Your task to perform on an android device: turn off javascript in the chrome app Image 0: 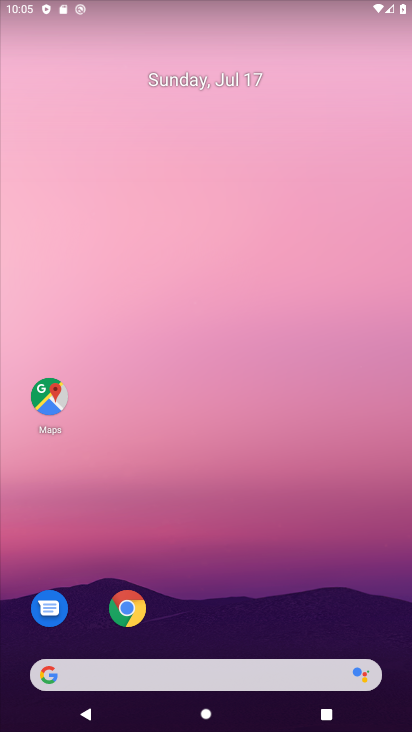
Step 0: drag from (374, 653) to (178, 99)
Your task to perform on an android device: turn off javascript in the chrome app Image 1: 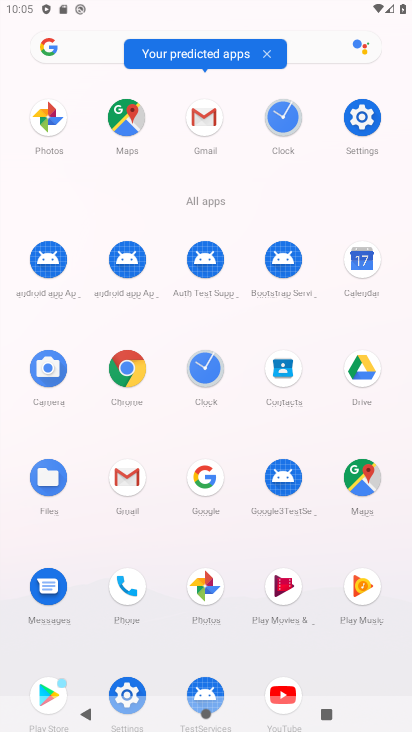
Step 1: click (125, 371)
Your task to perform on an android device: turn off javascript in the chrome app Image 2: 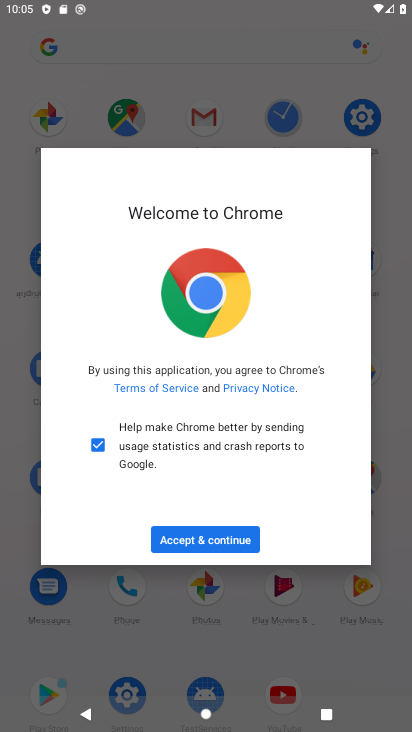
Step 2: click (202, 535)
Your task to perform on an android device: turn off javascript in the chrome app Image 3: 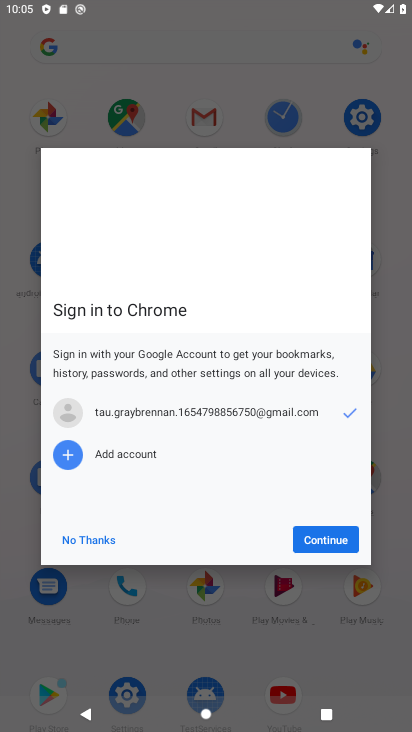
Step 3: click (331, 542)
Your task to perform on an android device: turn off javascript in the chrome app Image 4: 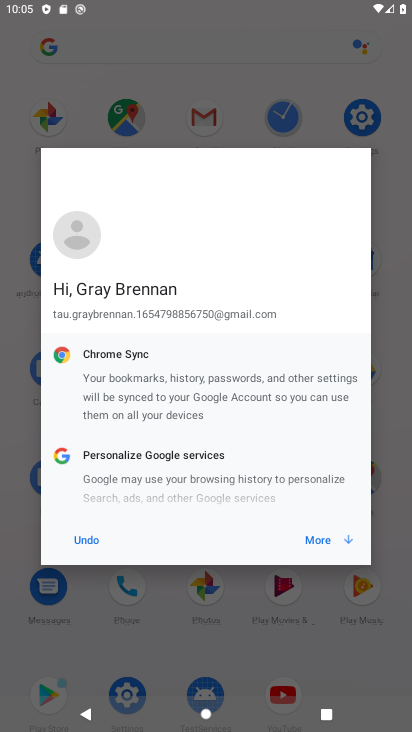
Step 4: click (331, 542)
Your task to perform on an android device: turn off javascript in the chrome app Image 5: 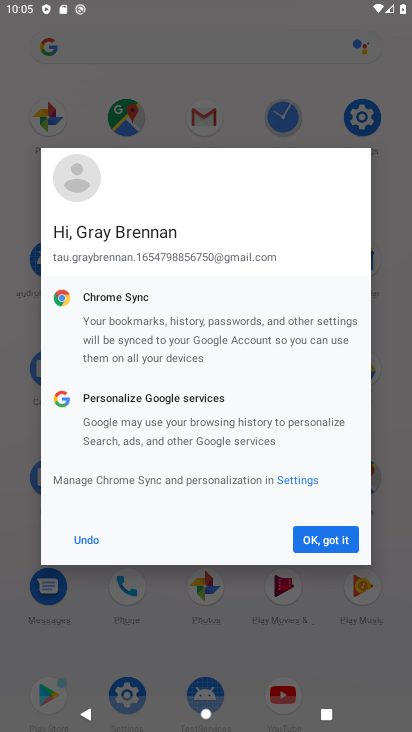
Step 5: click (330, 542)
Your task to perform on an android device: turn off javascript in the chrome app Image 6: 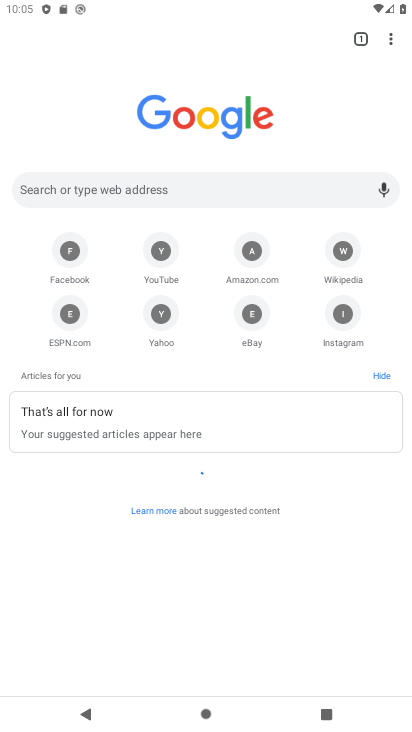
Step 6: click (389, 38)
Your task to perform on an android device: turn off javascript in the chrome app Image 7: 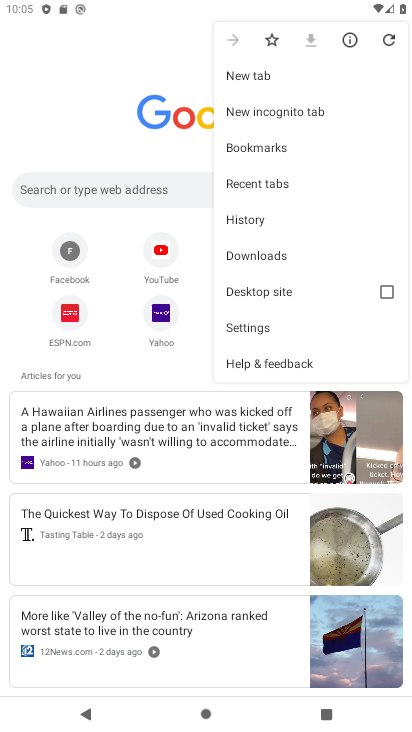
Step 7: click (269, 326)
Your task to perform on an android device: turn off javascript in the chrome app Image 8: 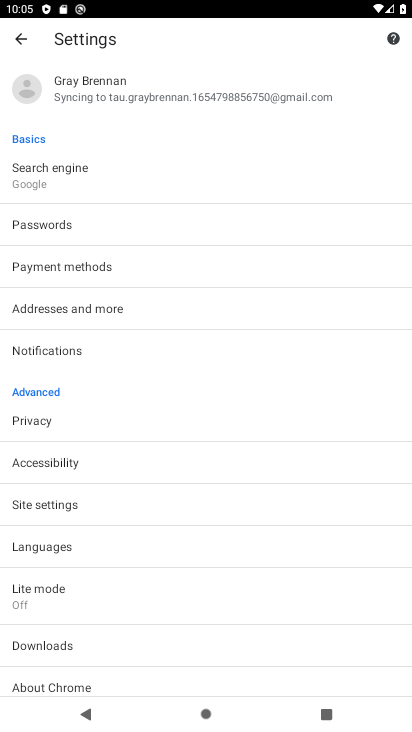
Step 8: click (75, 495)
Your task to perform on an android device: turn off javascript in the chrome app Image 9: 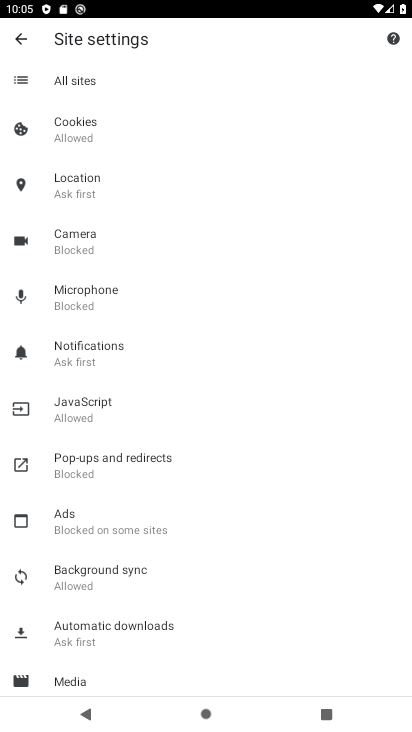
Step 9: click (110, 416)
Your task to perform on an android device: turn off javascript in the chrome app Image 10: 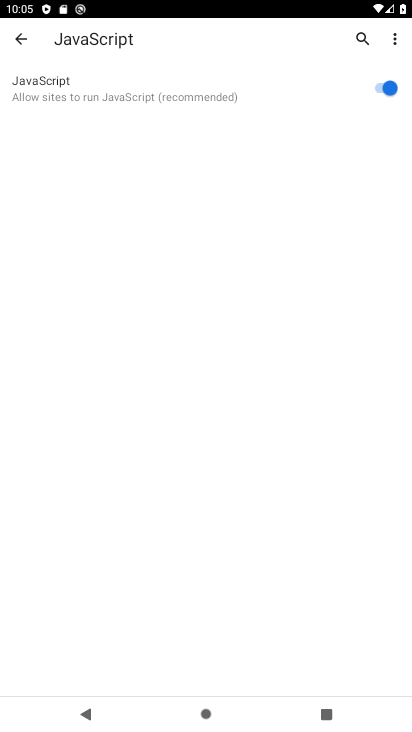
Step 10: click (381, 91)
Your task to perform on an android device: turn off javascript in the chrome app Image 11: 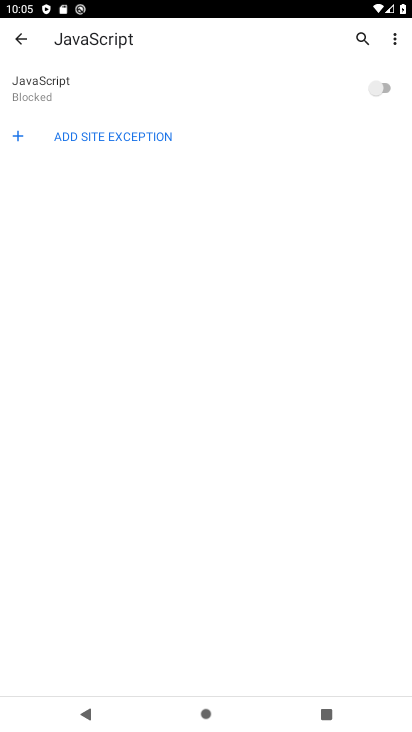
Step 11: task complete